Your task to perform on an android device: Open Google Chrome and open the bookmarks view Image 0: 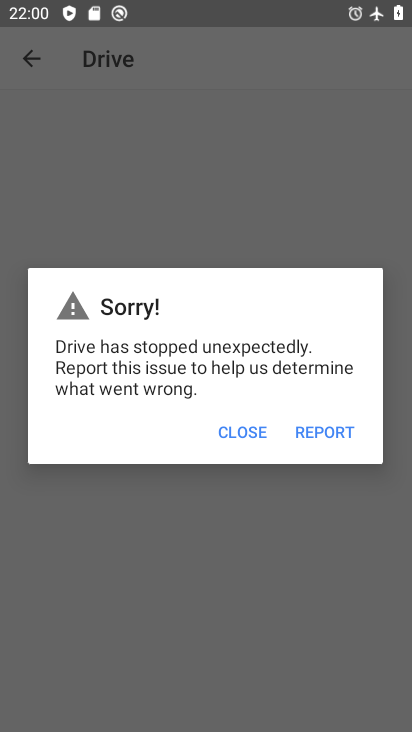
Step 0: press home button
Your task to perform on an android device: Open Google Chrome and open the bookmarks view Image 1: 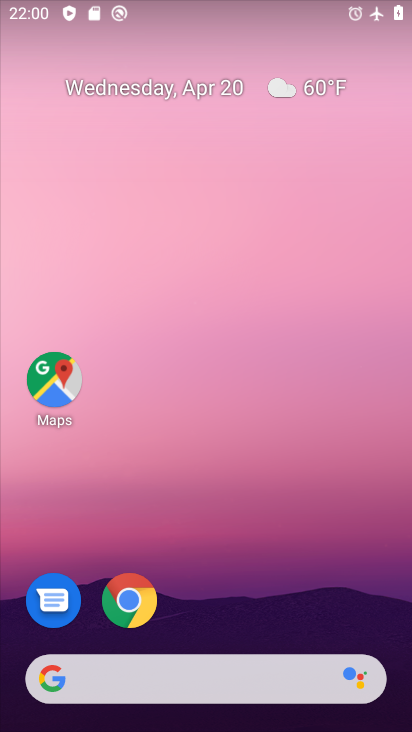
Step 1: drag from (226, 637) to (177, 76)
Your task to perform on an android device: Open Google Chrome and open the bookmarks view Image 2: 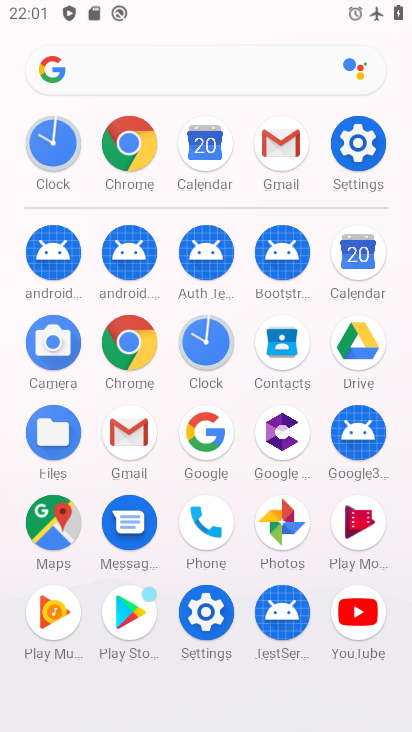
Step 2: click (127, 330)
Your task to perform on an android device: Open Google Chrome and open the bookmarks view Image 3: 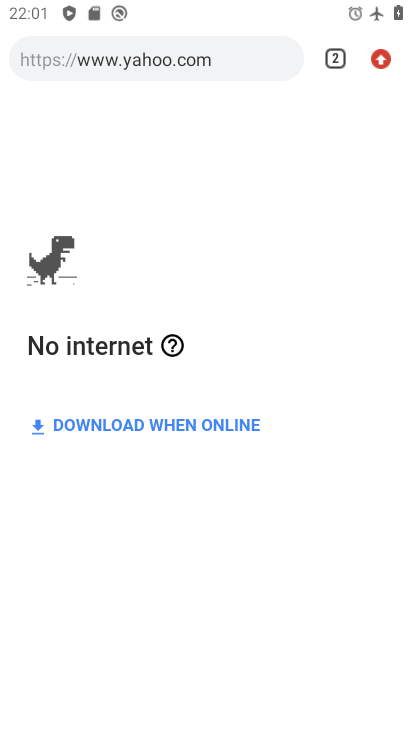
Step 3: click (381, 58)
Your task to perform on an android device: Open Google Chrome and open the bookmarks view Image 4: 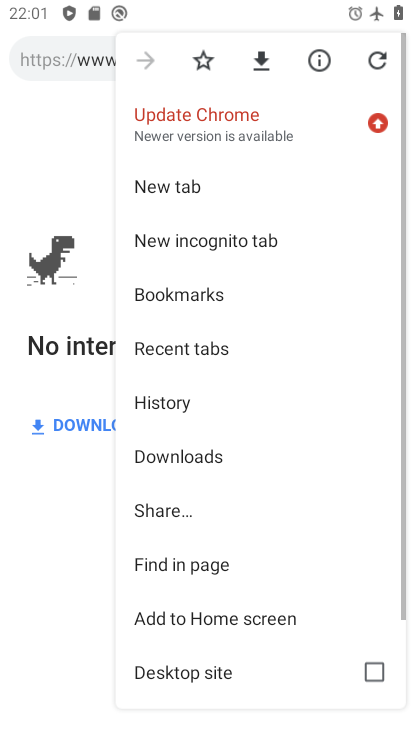
Step 4: drag from (381, 58) to (170, 293)
Your task to perform on an android device: Open Google Chrome and open the bookmarks view Image 5: 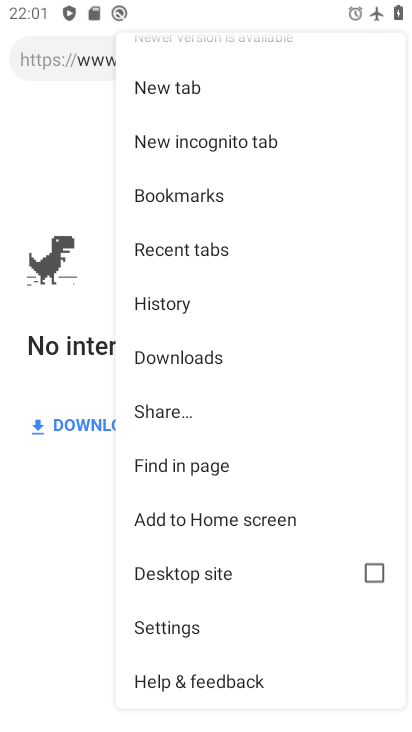
Step 5: click (168, 193)
Your task to perform on an android device: Open Google Chrome and open the bookmarks view Image 6: 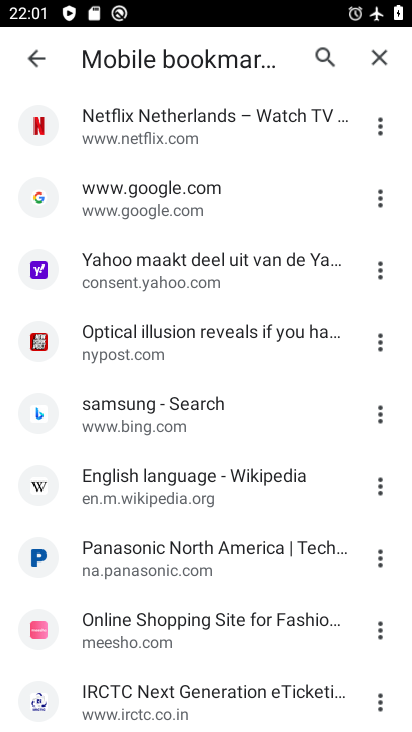
Step 6: task complete